Your task to perform on an android device: What's the latest tech news? Image 0: 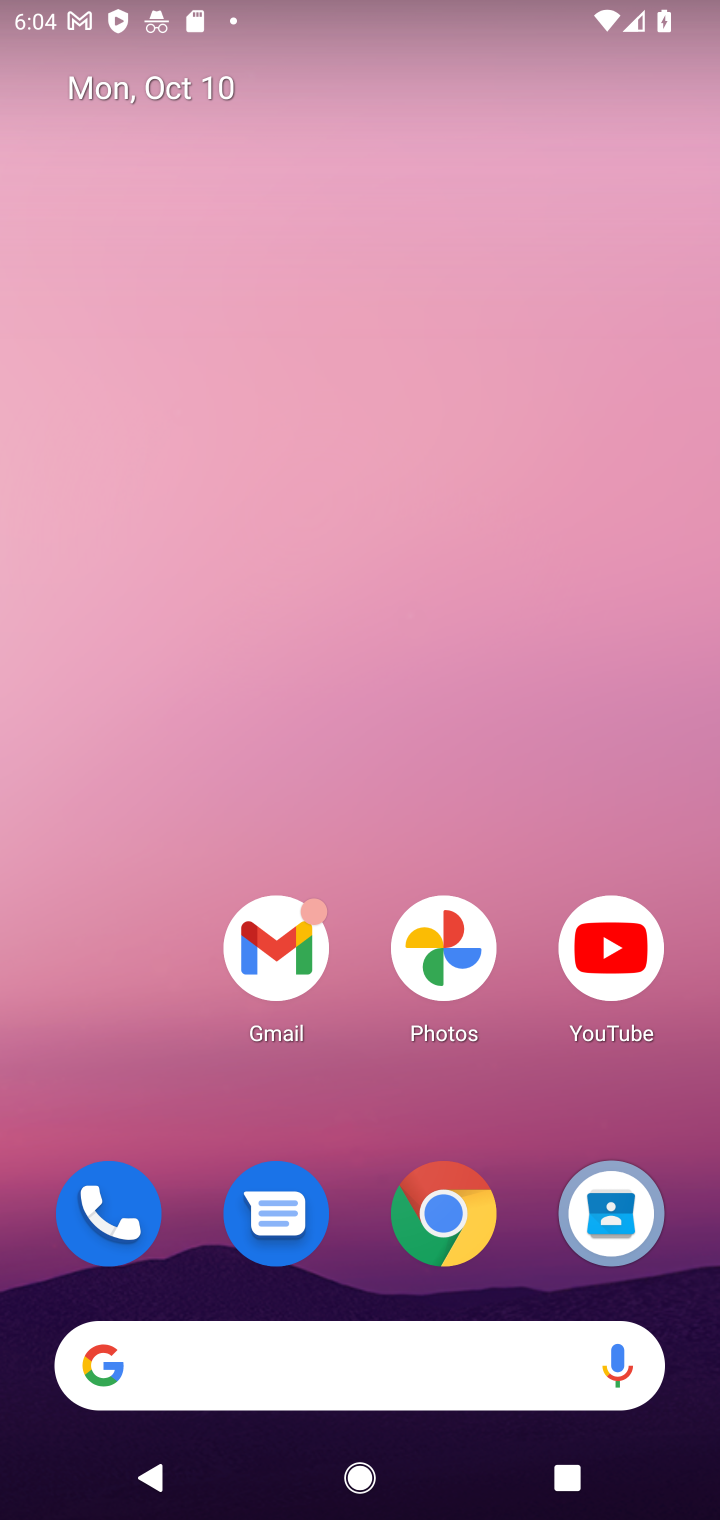
Step 0: click (285, 1371)
Your task to perform on an android device: What's the latest tech news? Image 1: 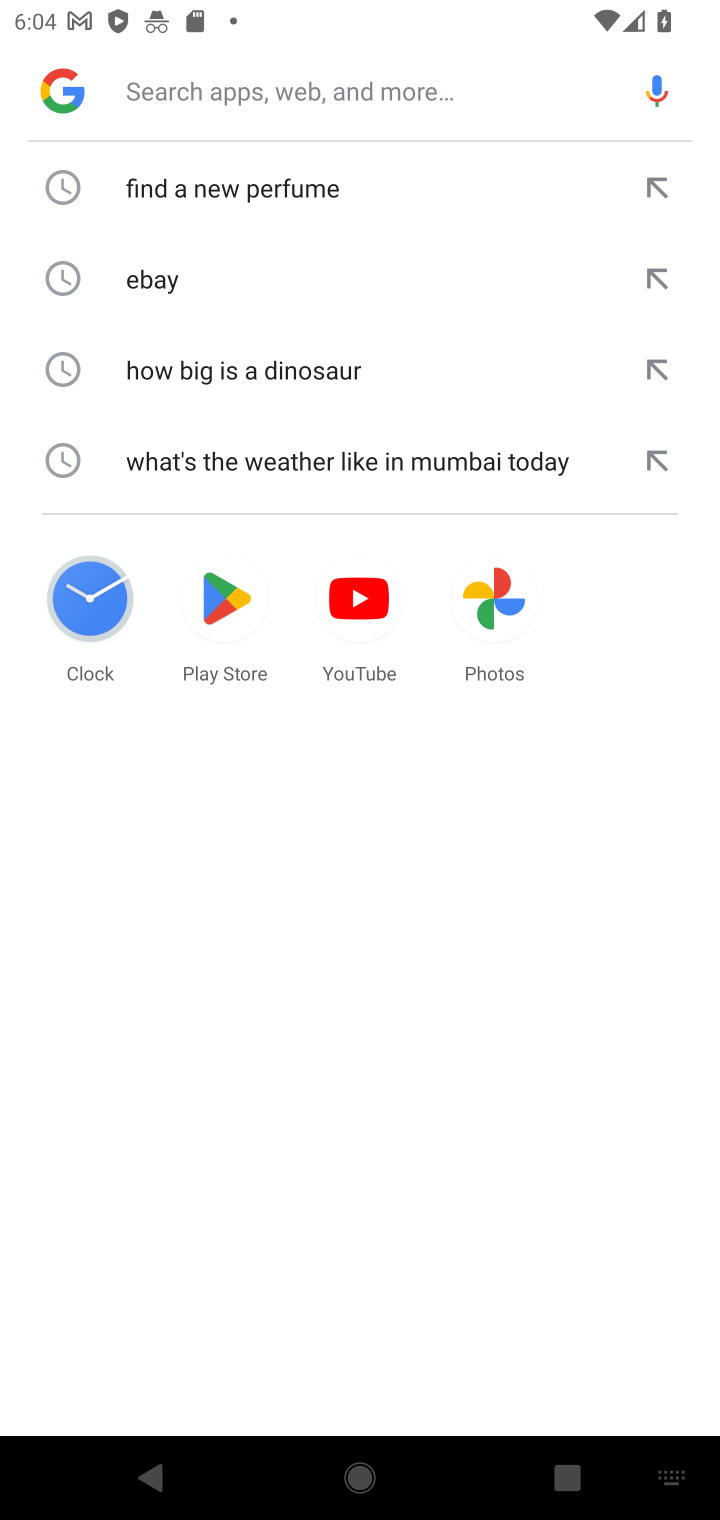
Step 1: click (208, 105)
Your task to perform on an android device: What's the latest tech news? Image 2: 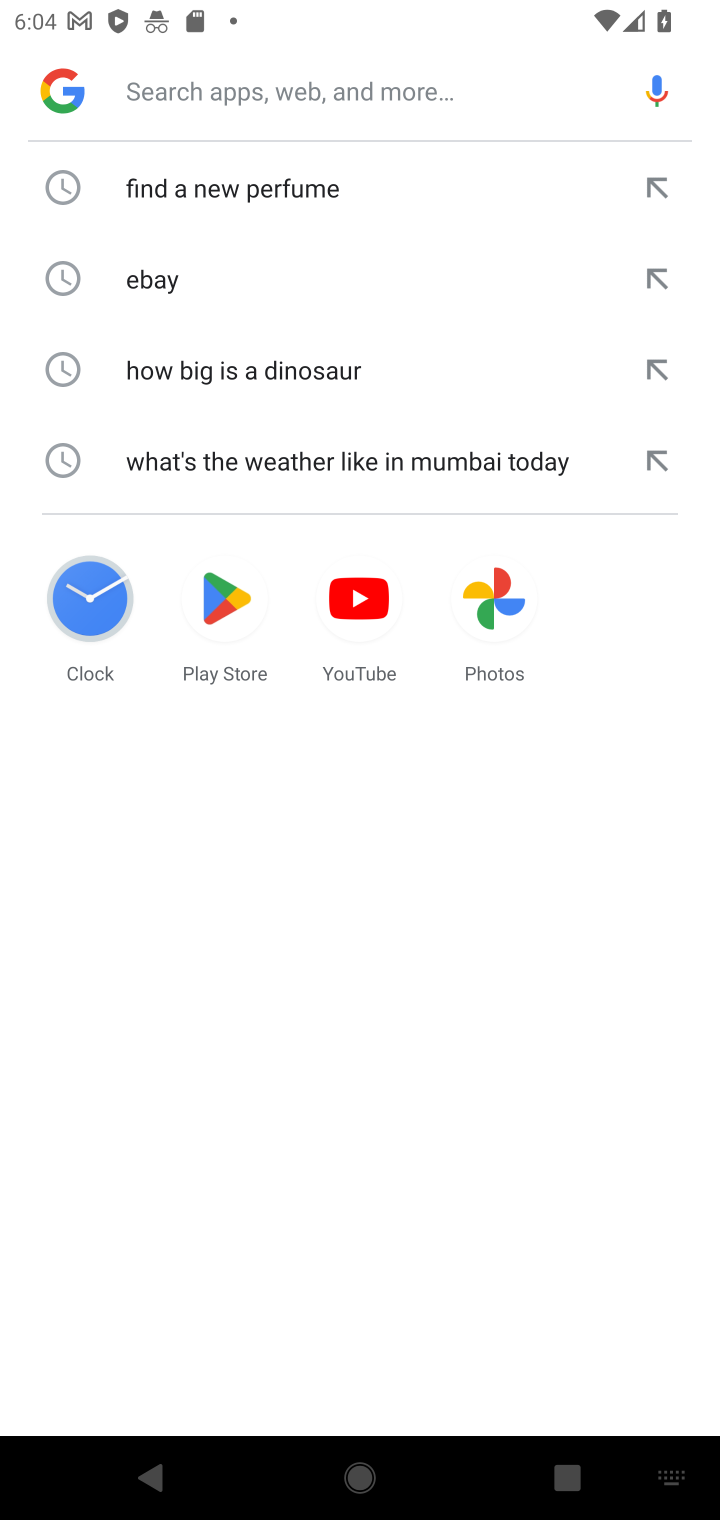
Step 2: type "What's the latest tech news?"
Your task to perform on an android device: What's the latest tech news? Image 3: 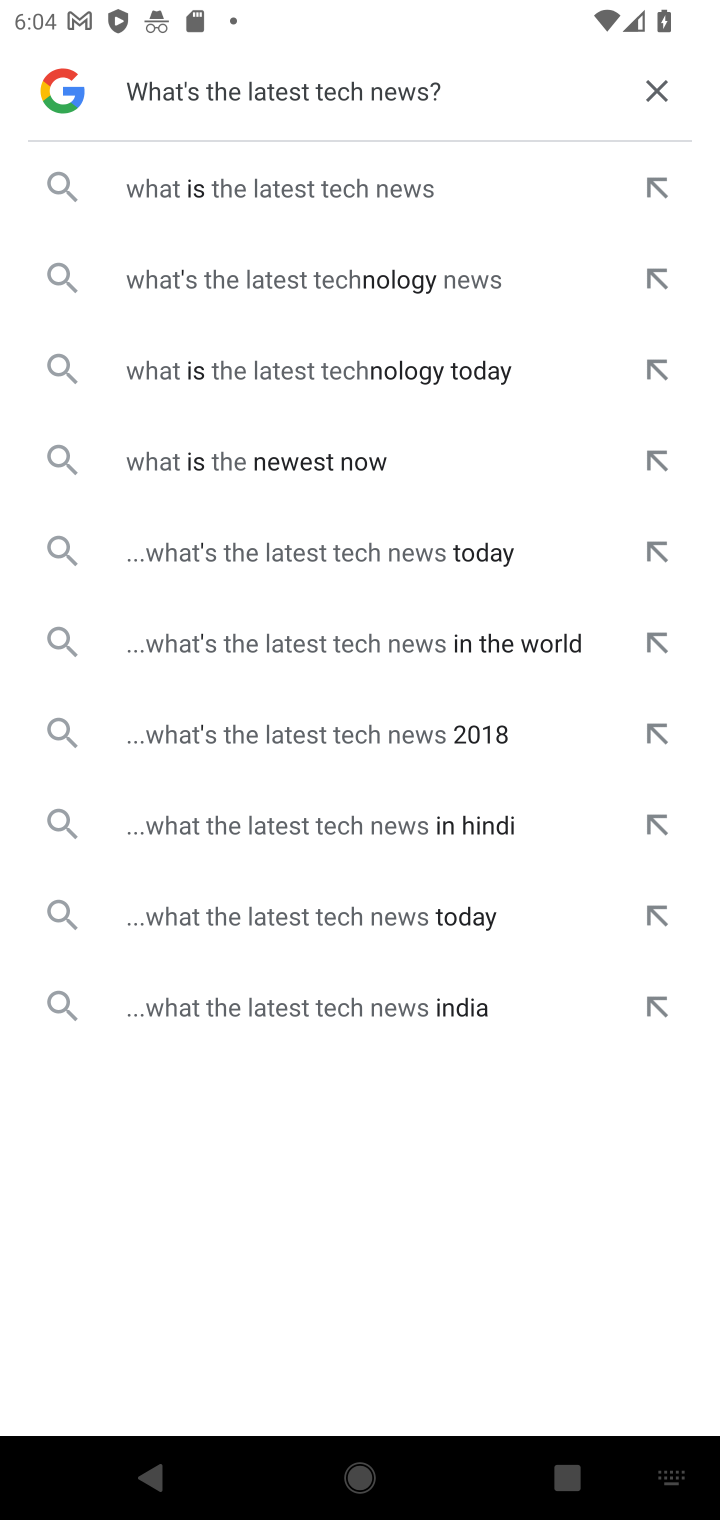
Step 3: click (299, 198)
Your task to perform on an android device: What's the latest tech news? Image 4: 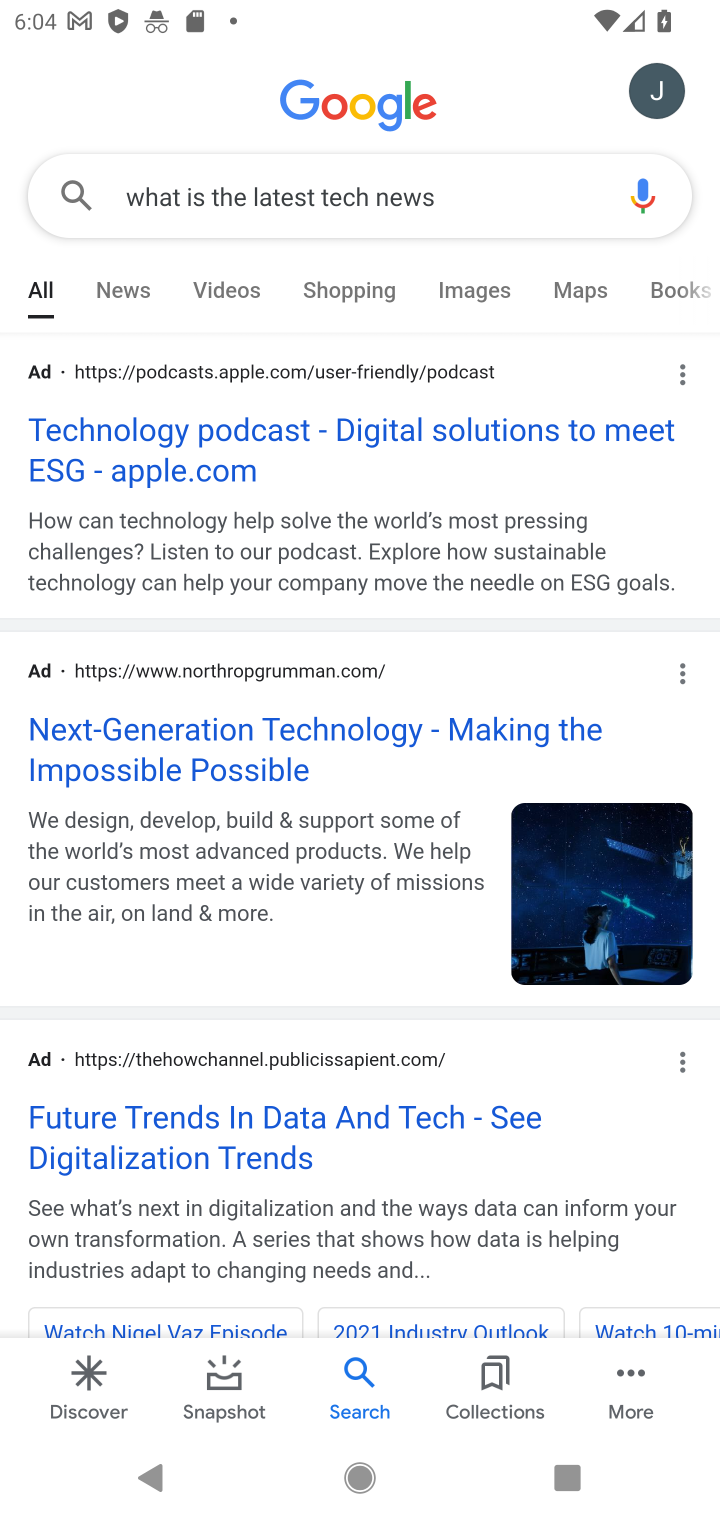
Step 4: task complete